Your task to perform on an android device: toggle airplane mode Image 0: 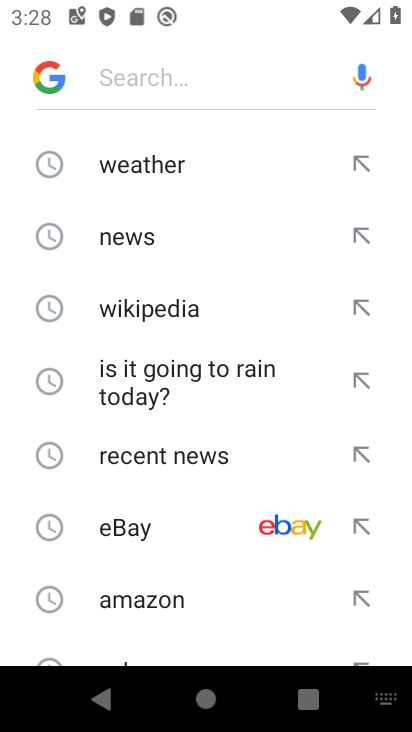
Step 0: press home button
Your task to perform on an android device: toggle airplane mode Image 1: 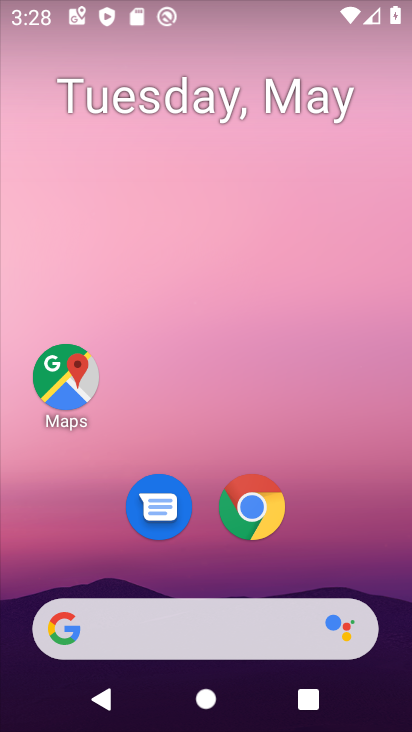
Step 1: drag from (228, 566) to (266, 93)
Your task to perform on an android device: toggle airplane mode Image 2: 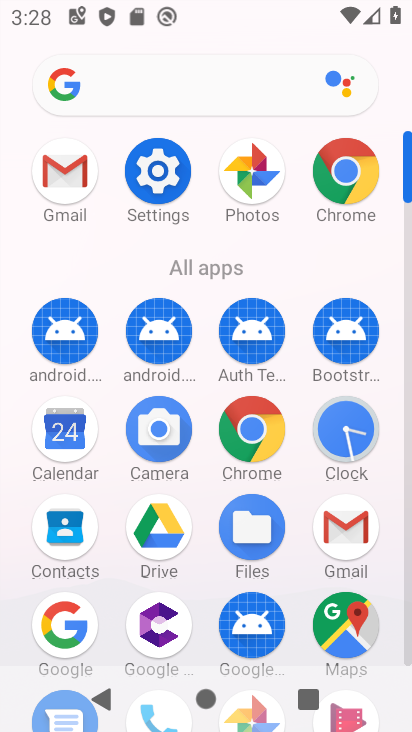
Step 2: click (160, 171)
Your task to perform on an android device: toggle airplane mode Image 3: 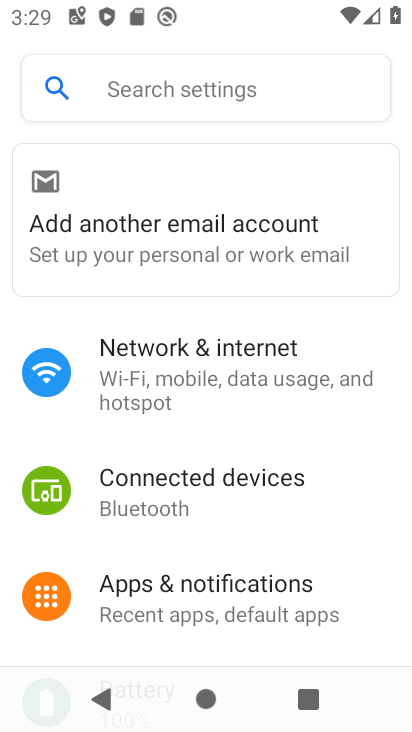
Step 3: click (170, 392)
Your task to perform on an android device: toggle airplane mode Image 4: 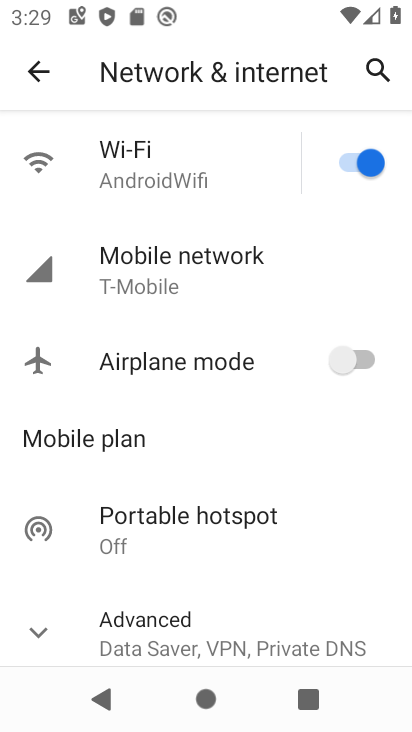
Step 4: click (349, 366)
Your task to perform on an android device: toggle airplane mode Image 5: 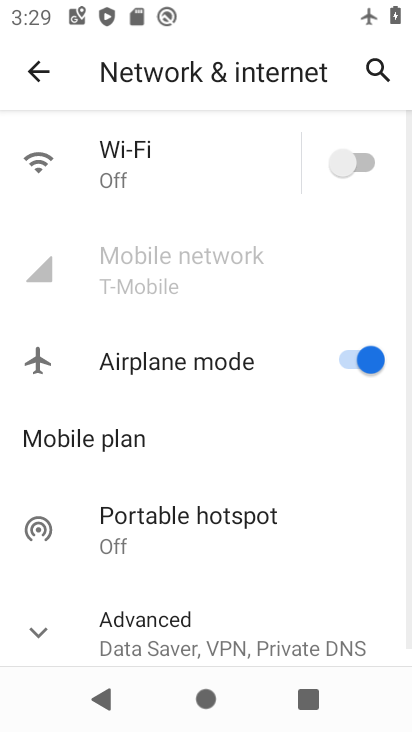
Step 5: task complete